Your task to perform on an android device: toggle wifi Image 0: 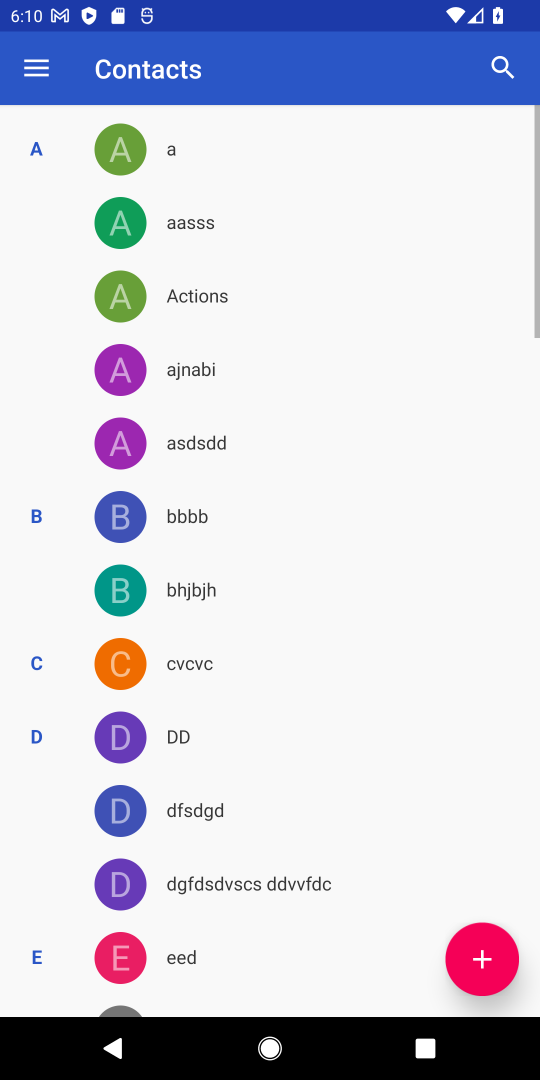
Step 0: press home button
Your task to perform on an android device: toggle wifi Image 1: 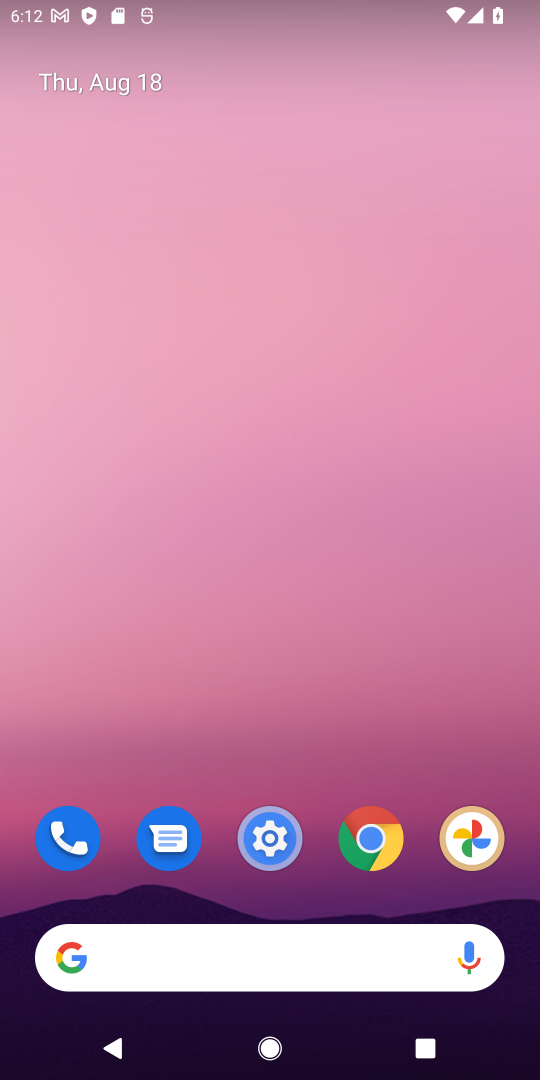
Step 1: drag from (261, 3) to (201, 914)
Your task to perform on an android device: toggle wifi Image 2: 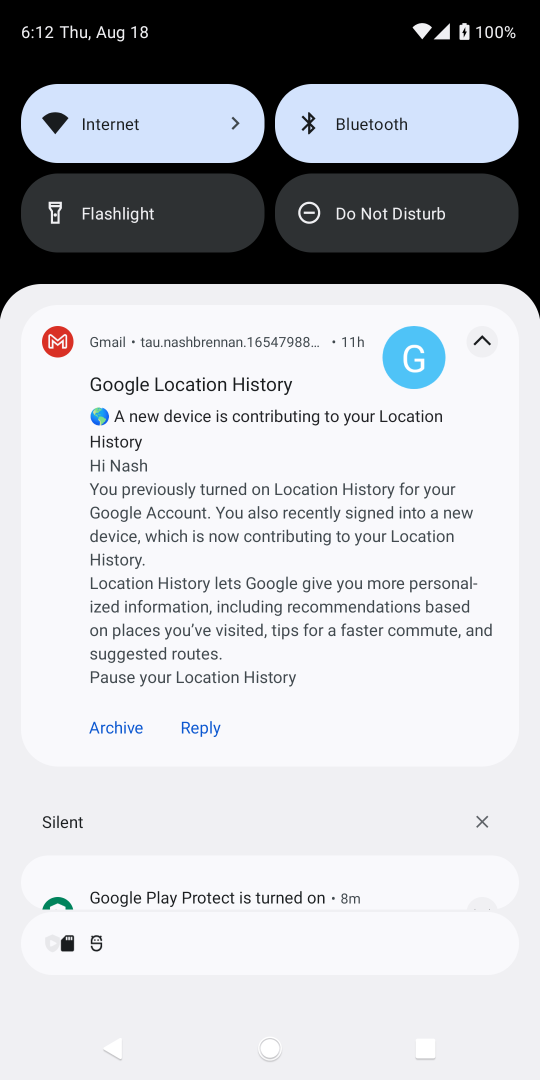
Step 2: click (95, 123)
Your task to perform on an android device: toggle wifi Image 3: 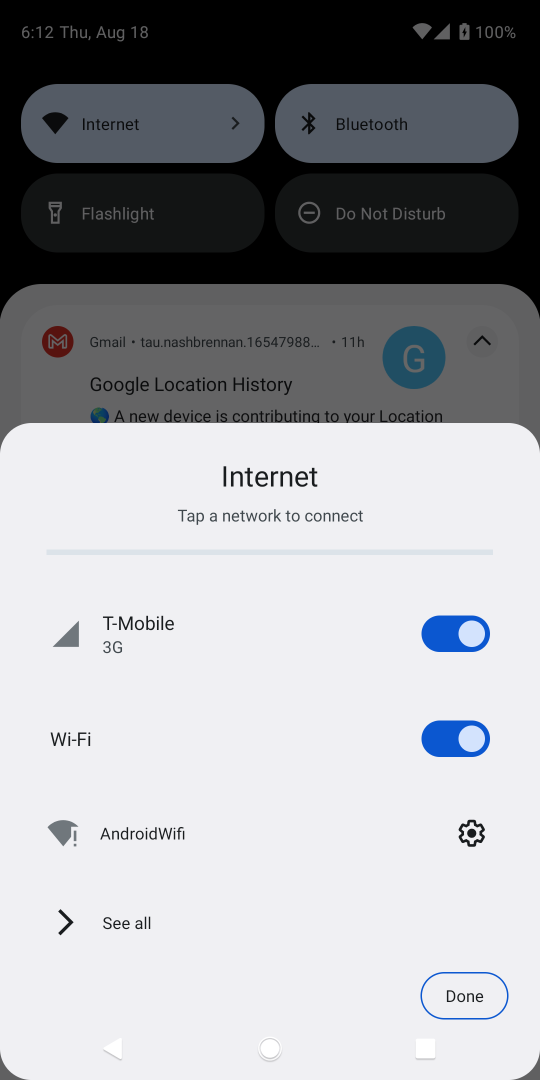
Step 3: click (486, 741)
Your task to perform on an android device: toggle wifi Image 4: 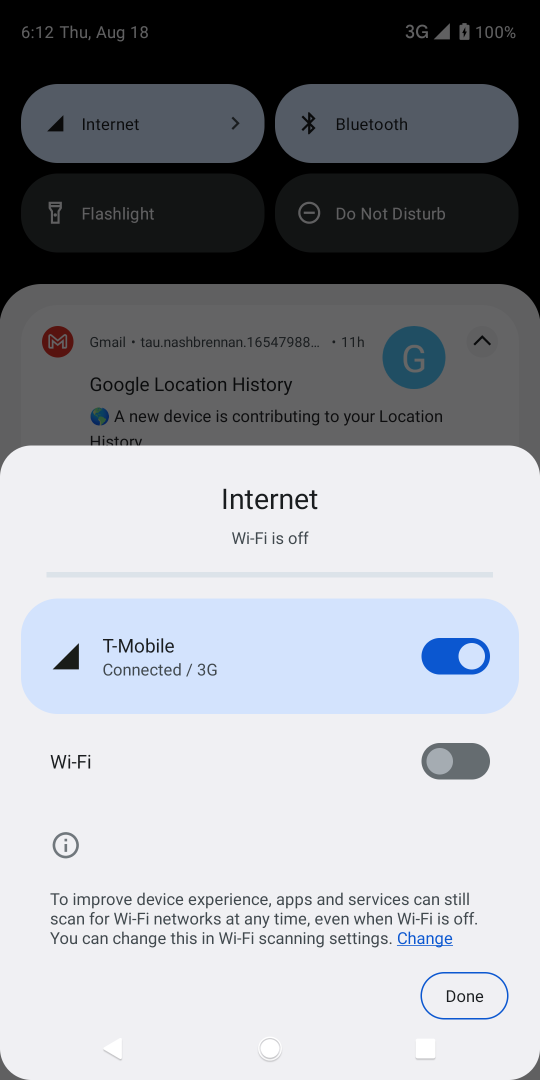
Step 4: task complete